Your task to perform on an android device: snooze an email in the gmail app Image 0: 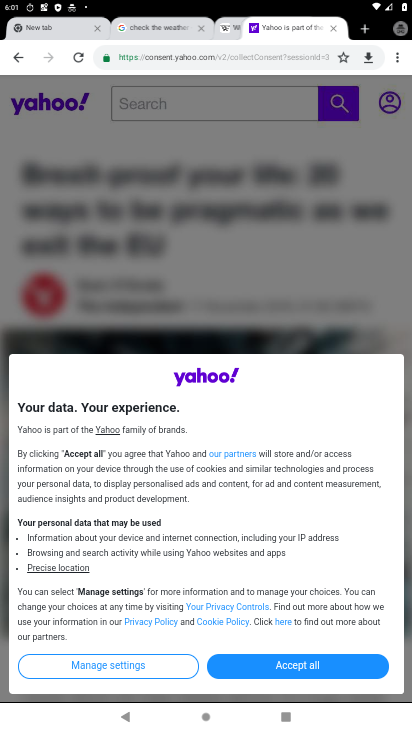
Step 0: press home button
Your task to perform on an android device: snooze an email in the gmail app Image 1: 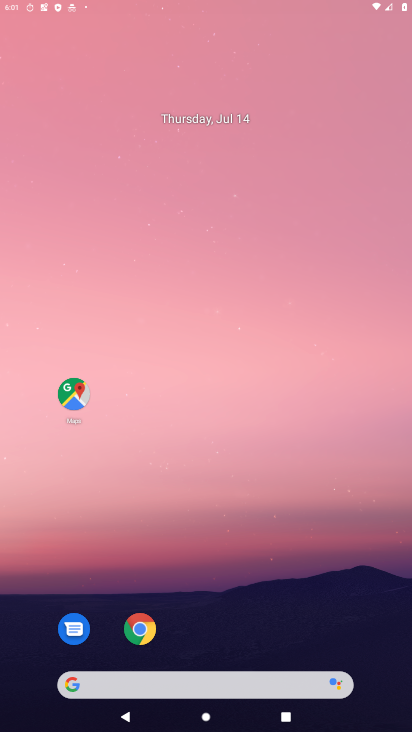
Step 1: drag from (284, 609) to (270, 123)
Your task to perform on an android device: snooze an email in the gmail app Image 2: 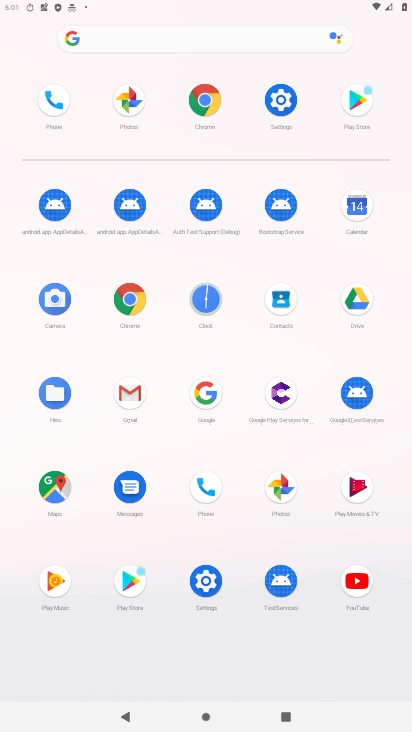
Step 2: click (134, 392)
Your task to perform on an android device: snooze an email in the gmail app Image 3: 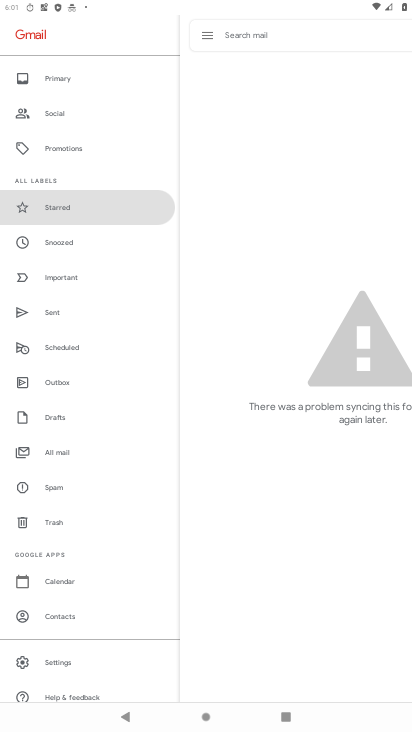
Step 3: click (85, 238)
Your task to perform on an android device: snooze an email in the gmail app Image 4: 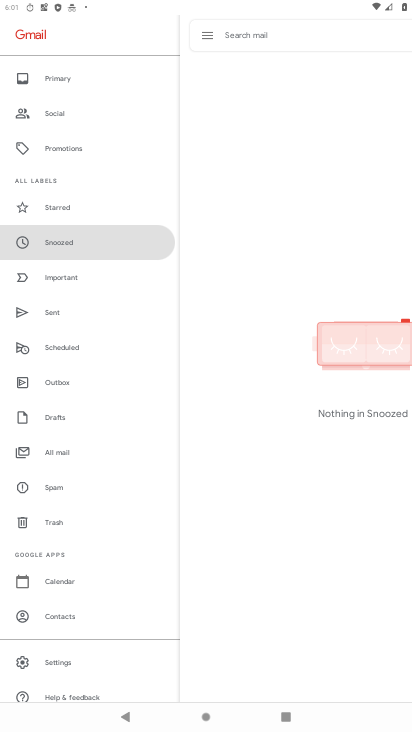
Step 4: task complete